Your task to perform on an android device: Go to battery settings Image 0: 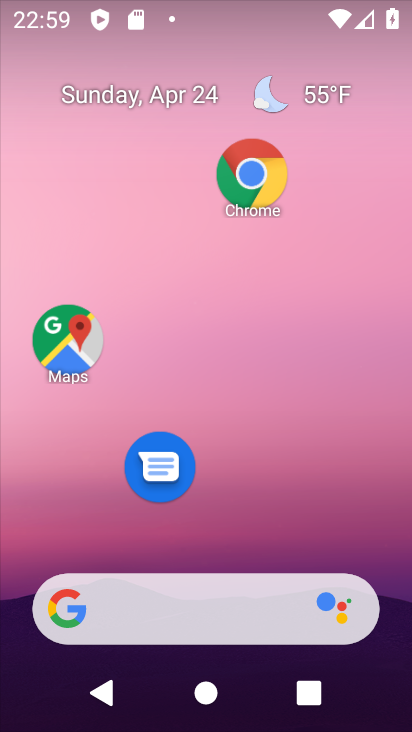
Step 0: drag from (262, 489) to (300, 6)
Your task to perform on an android device: Go to battery settings Image 1: 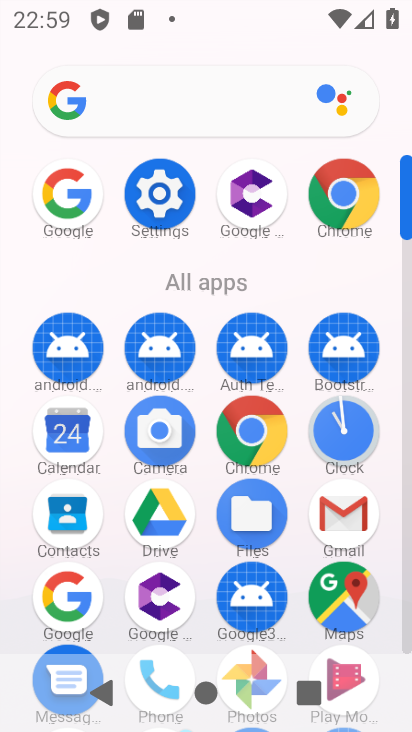
Step 1: click (164, 194)
Your task to perform on an android device: Go to battery settings Image 2: 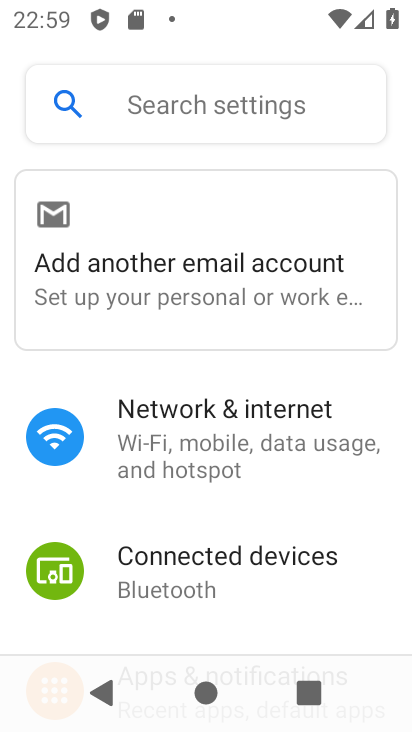
Step 2: drag from (295, 536) to (294, 73)
Your task to perform on an android device: Go to battery settings Image 3: 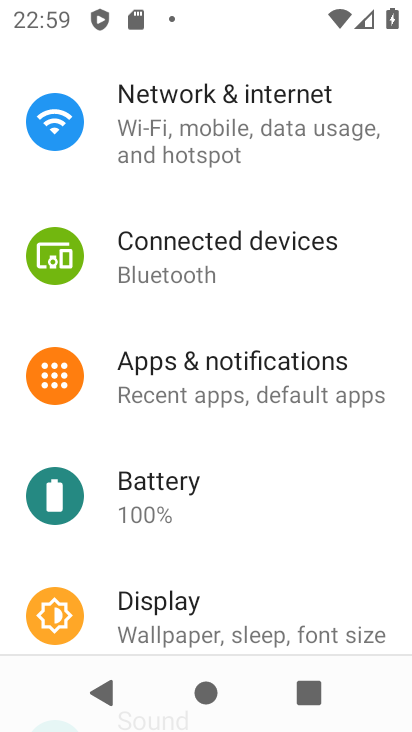
Step 3: click (205, 496)
Your task to perform on an android device: Go to battery settings Image 4: 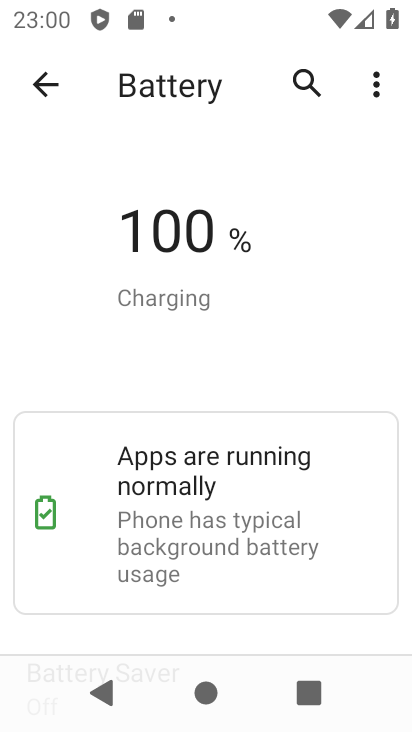
Step 4: task complete